Your task to perform on an android device: change the clock display to show seconds Image 0: 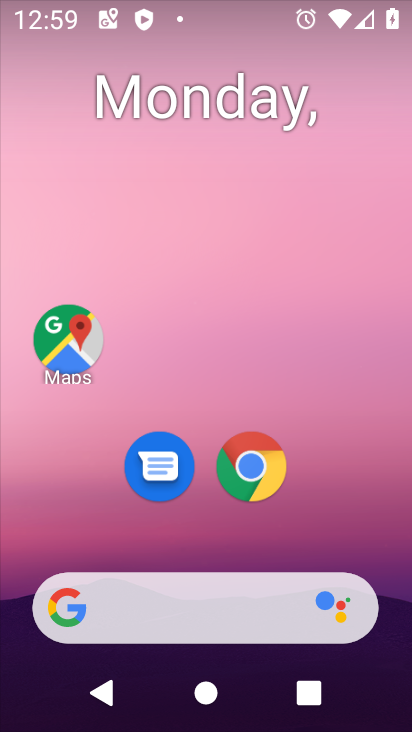
Step 0: drag from (392, 627) to (251, 38)
Your task to perform on an android device: change the clock display to show seconds Image 1: 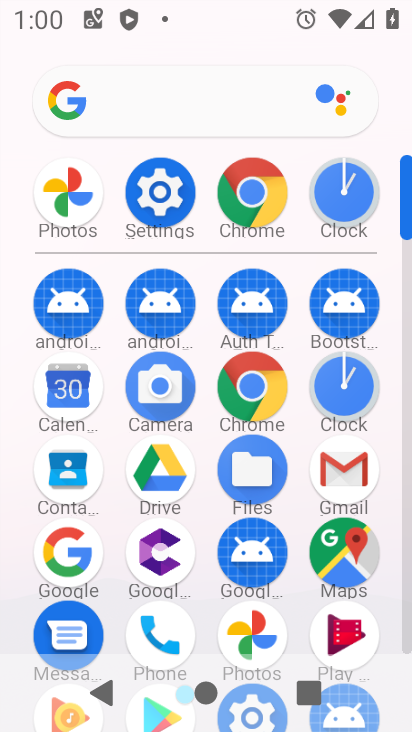
Step 1: click (353, 408)
Your task to perform on an android device: change the clock display to show seconds Image 2: 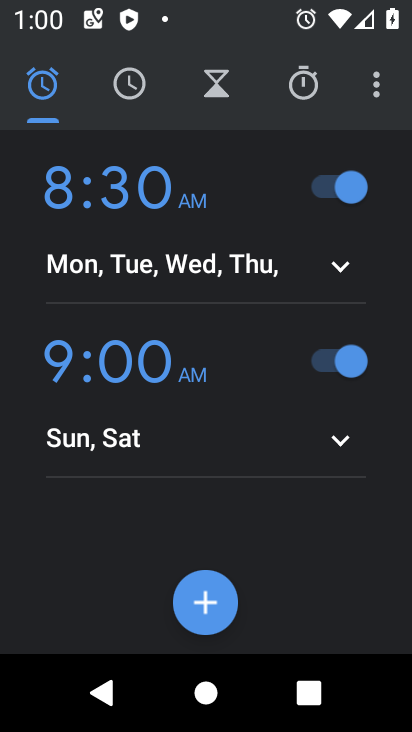
Step 2: click (370, 86)
Your task to perform on an android device: change the clock display to show seconds Image 3: 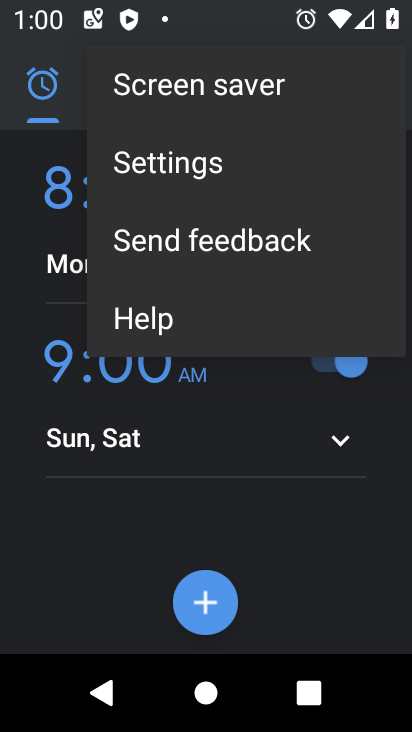
Step 3: click (205, 174)
Your task to perform on an android device: change the clock display to show seconds Image 4: 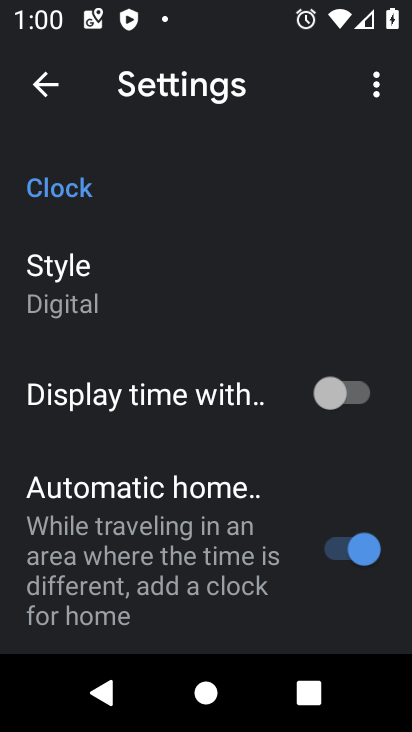
Step 4: click (253, 415)
Your task to perform on an android device: change the clock display to show seconds Image 5: 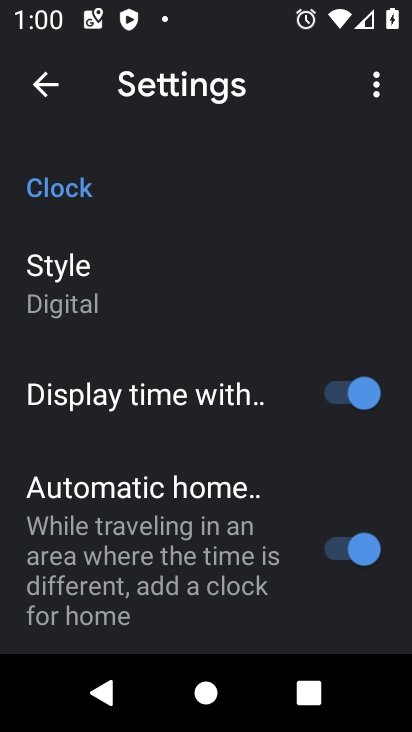
Step 5: task complete